Your task to perform on an android device: Go to Yahoo.com Image 0: 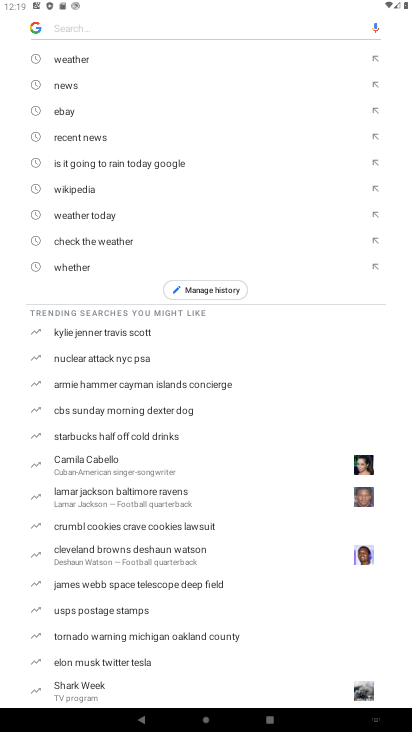
Step 0: press home button
Your task to perform on an android device: Go to Yahoo.com Image 1: 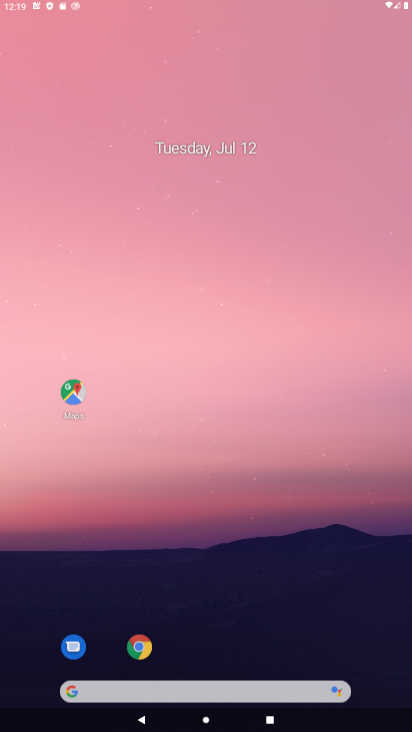
Step 1: drag from (355, 629) to (245, 116)
Your task to perform on an android device: Go to Yahoo.com Image 2: 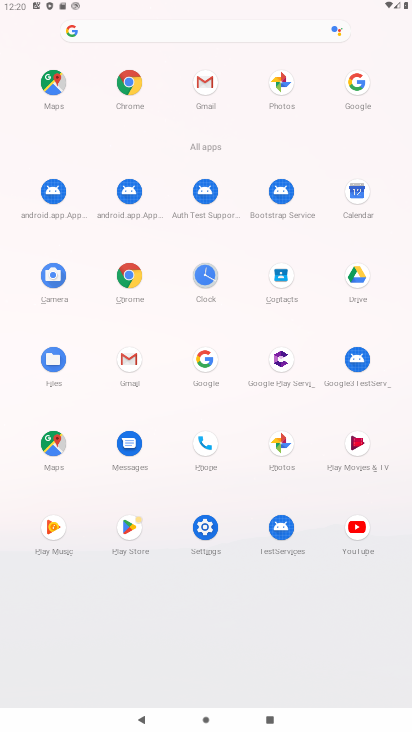
Step 2: click (190, 347)
Your task to perform on an android device: Go to Yahoo.com Image 3: 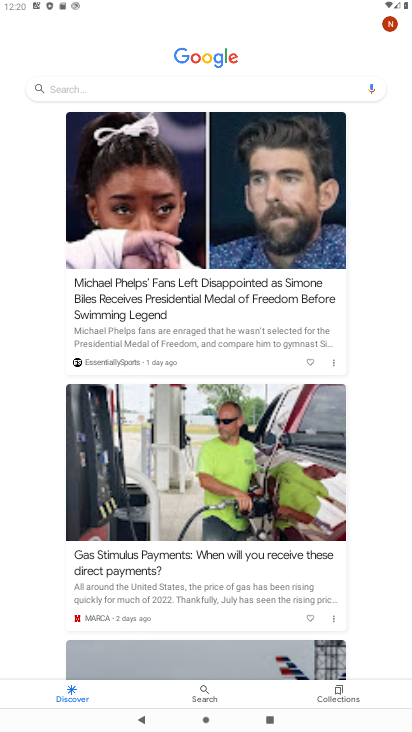
Step 3: click (139, 88)
Your task to perform on an android device: Go to Yahoo.com Image 4: 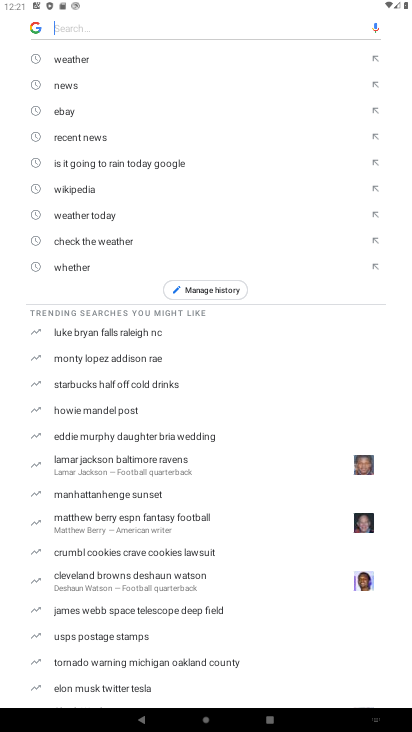
Step 4: type "yahoo.com"
Your task to perform on an android device: Go to Yahoo.com Image 5: 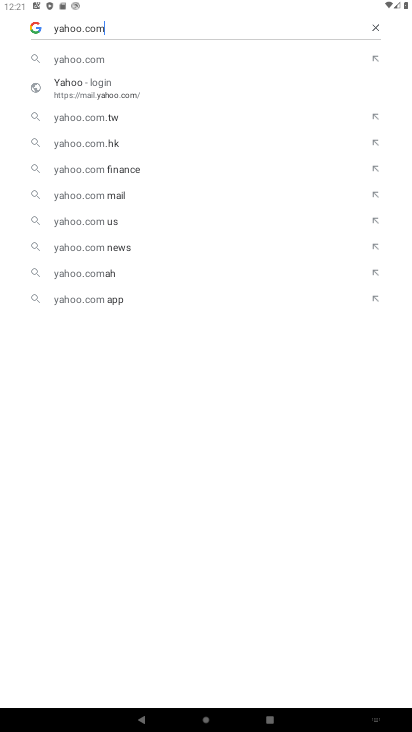
Step 5: click (128, 70)
Your task to perform on an android device: Go to Yahoo.com Image 6: 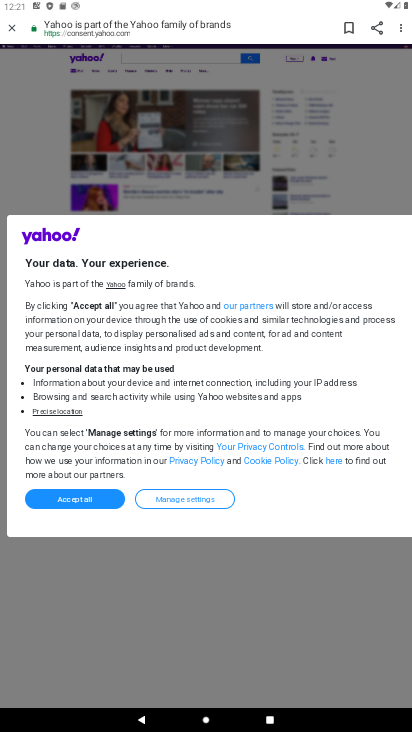
Step 6: task complete